Your task to perform on an android device: Go to Yahoo.com Image 0: 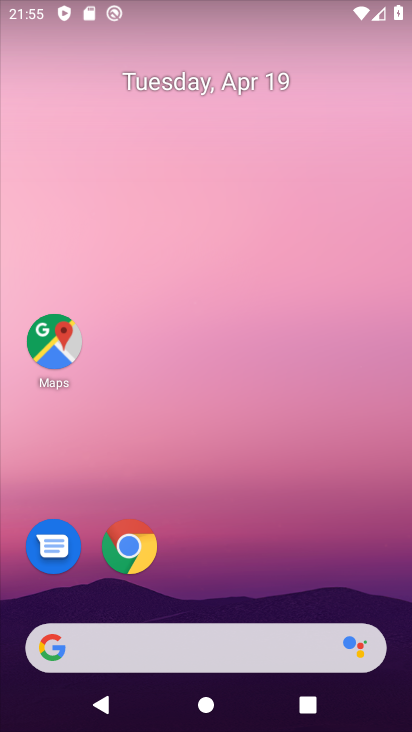
Step 0: drag from (234, 376) to (220, 5)
Your task to perform on an android device: Go to Yahoo.com Image 1: 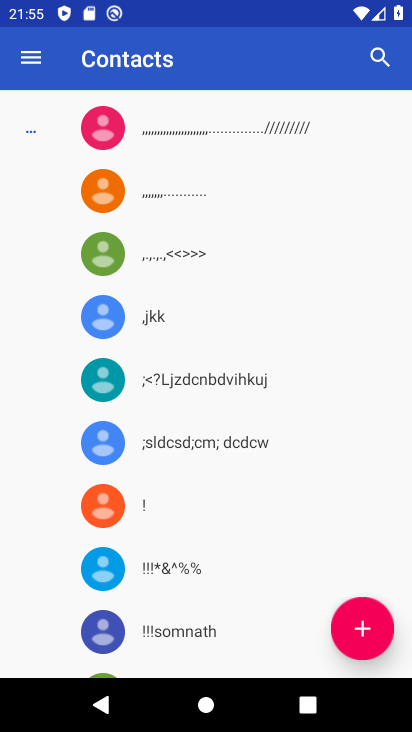
Step 1: press home button
Your task to perform on an android device: Go to Yahoo.com Image 2: 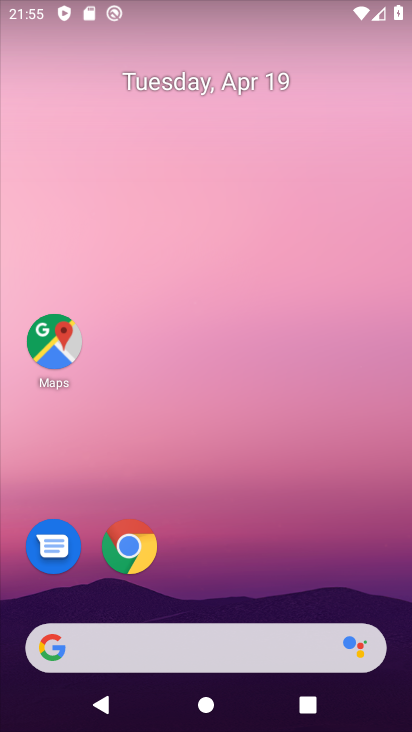
Step 2: click (141, 548)
Your task to perform on an android device: Go to Yahoo.com Image 3: 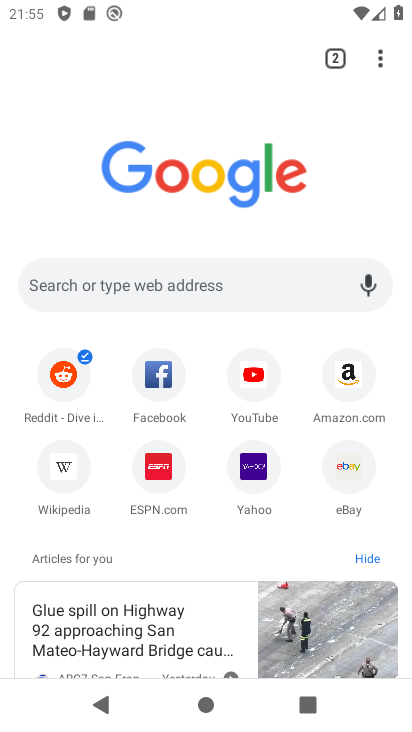
Step 3: click (251, 476)
Your task to perform on an android device: Go to Yahoo.com Image 4: 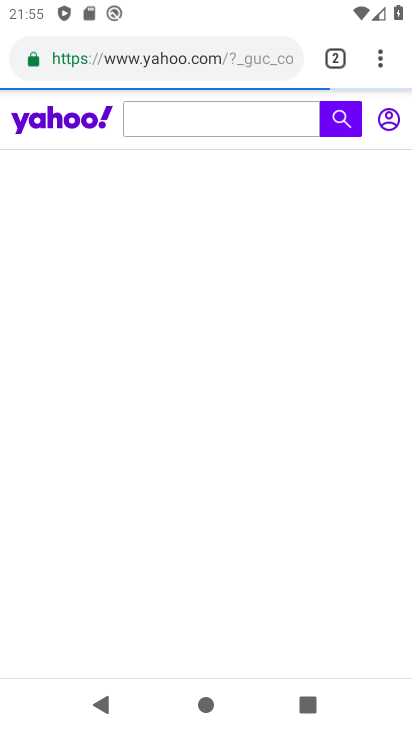
Step 4: task complete